Your task to perform on an android device: stop showing notifications on the lock screen Image 0: 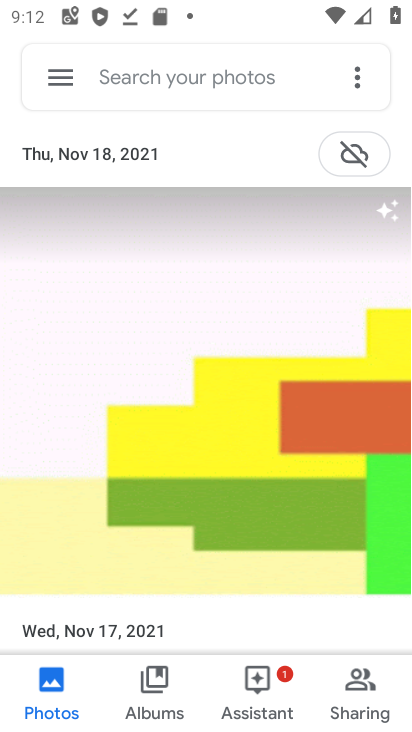
Step 0: press back button
Your task to perform on an android device: stop showing notifications on the lock screen Image 1: 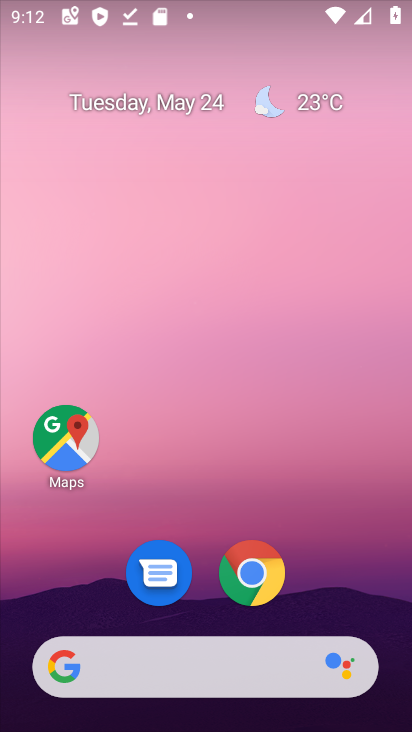
Step 1: drag from (321, 652) to (250, 128)
Your task to perform on an android device: stop showing notifications on the lock screen Image 2: 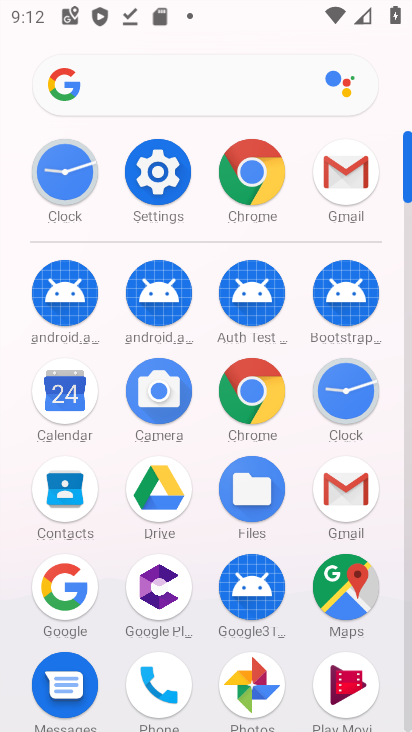
Step 2: click (157, 168)
Your task to perform on an android device: stop showing notifications on the lock screen Image 3: 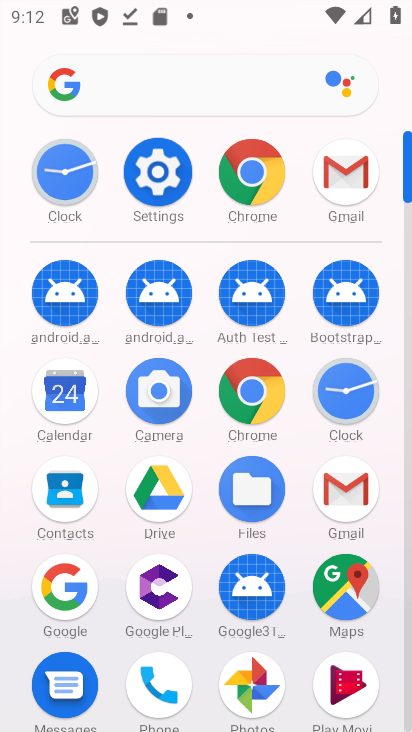
Step 3: click (158, 167)
Your task to perform on an android device: stop showing notifications on the lock screen Image 4: 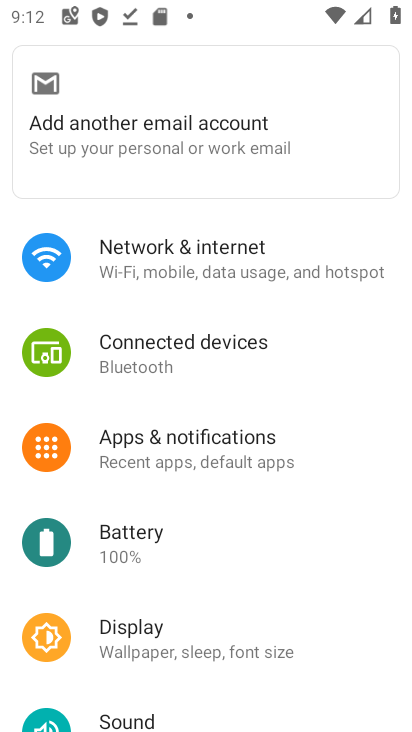
Step 4: click (183, 456)
Your task to perform on an android device: stop showing notifications on the lock screen Image 5: 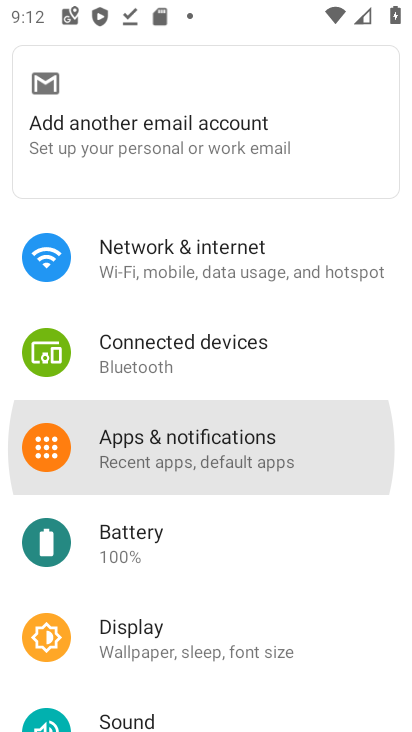
Step 5: click (185, 456)
Your task to perform on an android device: stop showing notifications on the lock screen Image 6: 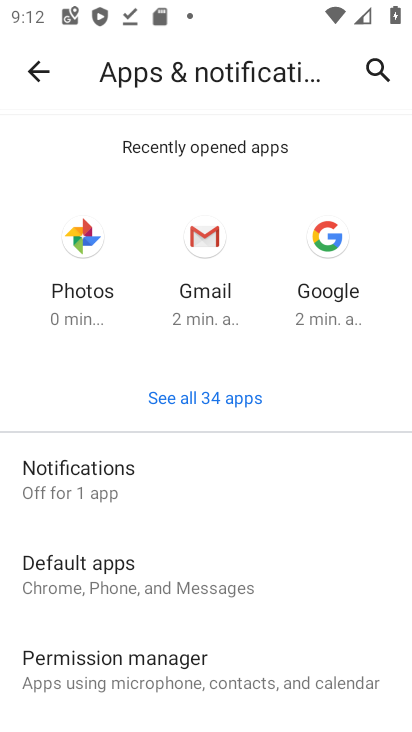
Step 6: click (81, 476)
Your task to perform on an android device: stop showing notifications on the lock screen Image 7: 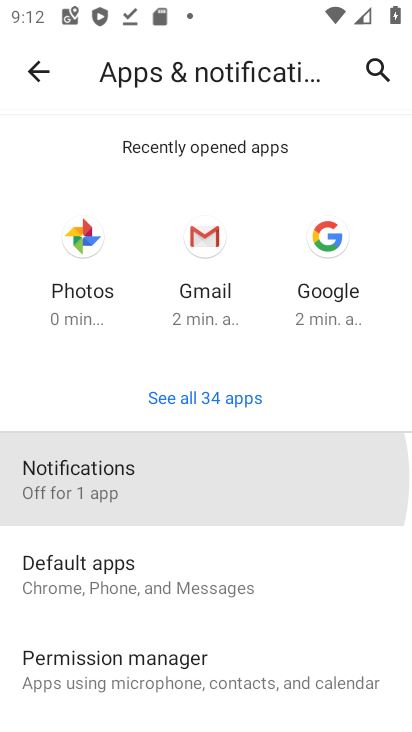
Step 7: click (81, 476)
Your task to perform on an android device: stop showing notifications on the lock screen Image 8: 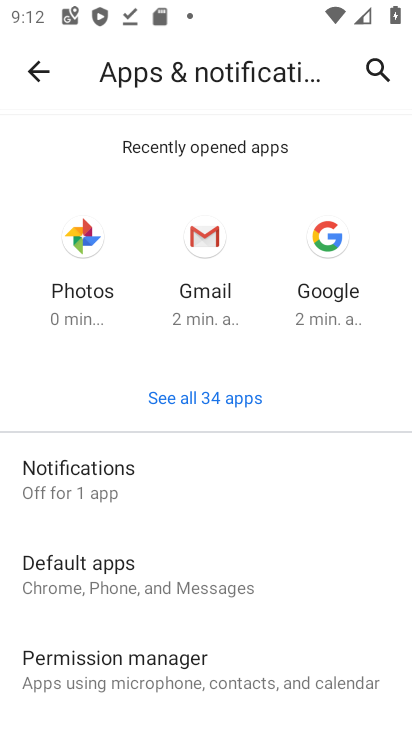
Step 8: click (82, 476)
Your task to perform on an android device: stop showing notifications on the lock screen Image 9: 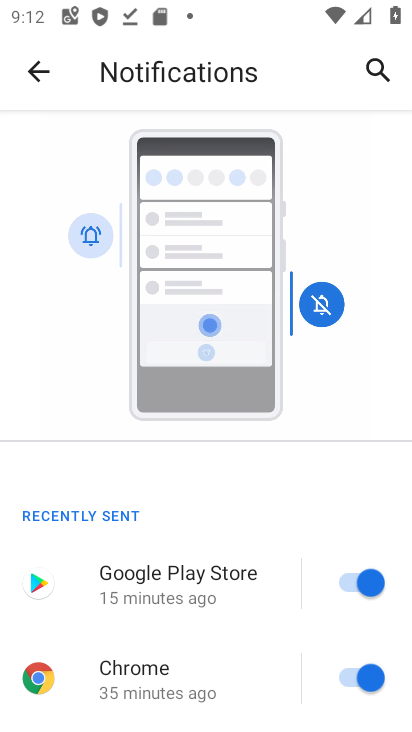
Step 9: drag from (175, 575) to (176, 318)
Your task to perform on an android device: stop showing notifications on the lock screen Image 10: 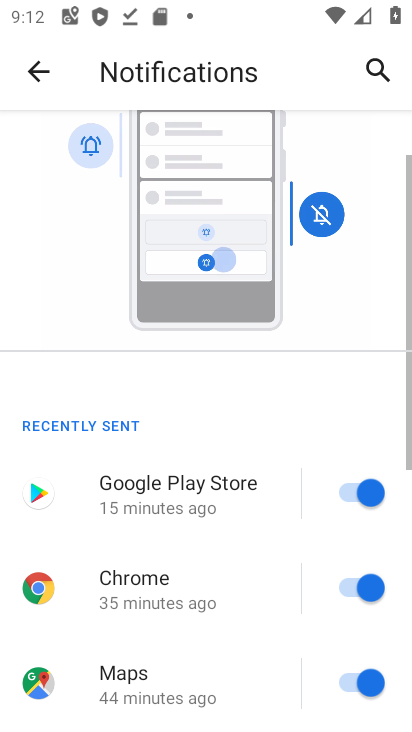
Step 10: drag from (233, 458) to (252, 222)
Your task to perform on an android device: stop showing notifications on the lock screen Image 11: 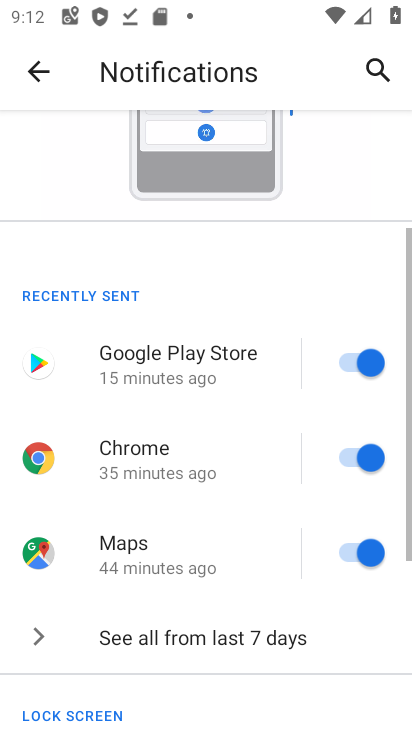
Step 11: drag from (228, 517) to (228, 172)
Your task to perform on an android device: stop showing notifications on the lock screen Image 12: 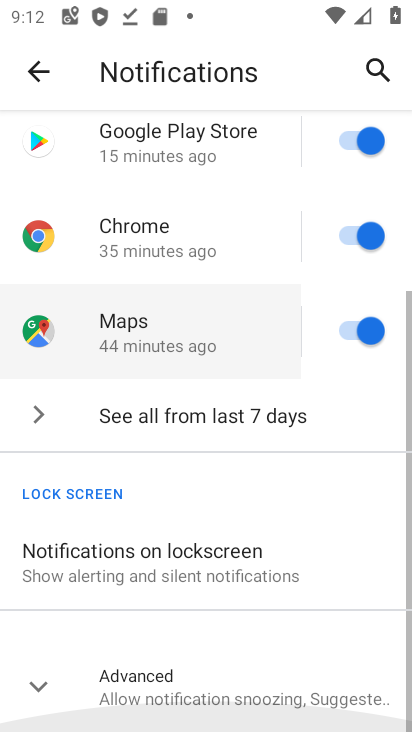
Step 12: drag from (233, 731) to (196, 371)
Your task to perform on an android device: stop showing notifications on the lock screen Image 13: 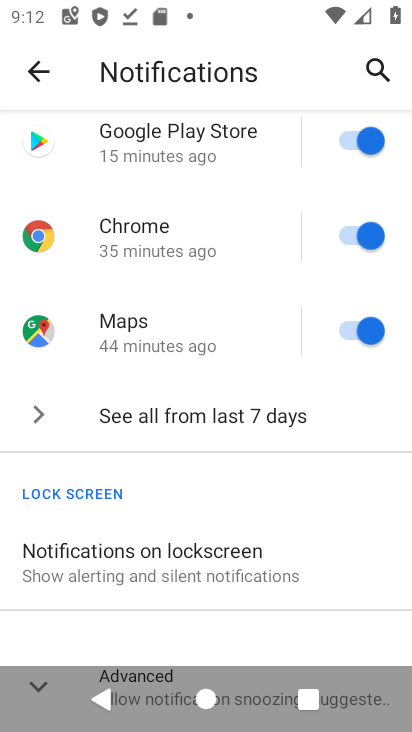
Step 13: click (145, 572)
Your task to perform on an android device: stop showing notifications on the lock screen Image 14: 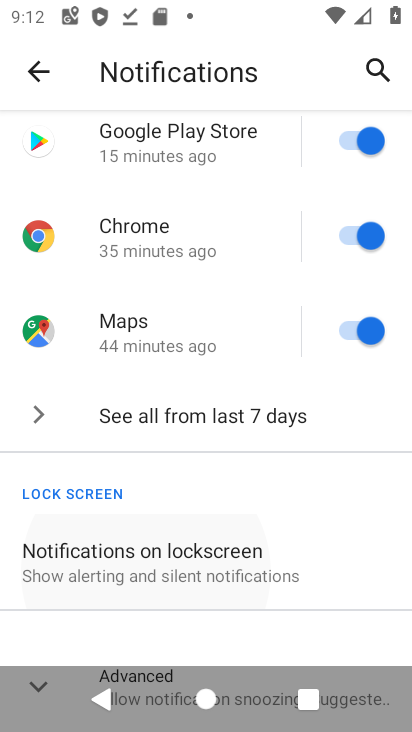
Step 14: click (150, 564)
Your task to perform on an android device: stop showing notifications on the lock screen Image 15: 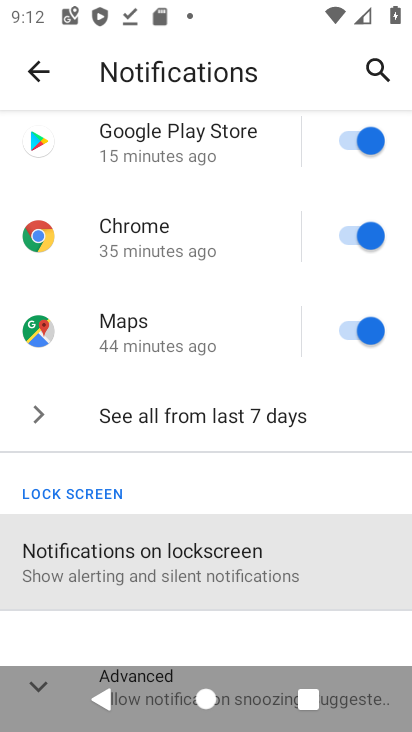
Step 15: click (150, 563)
Your task to perform on an android device: stop showing notifications on the lock screen Image 16: 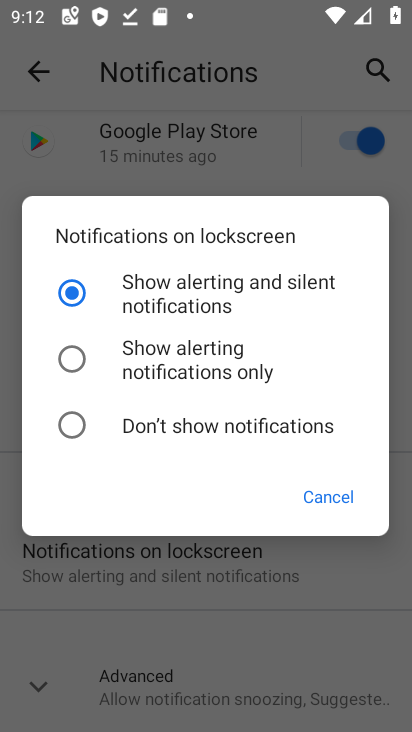
Step 16: click (62, 424)
Your task to perform on an android device: stop showing notifications on the lock screen Image 17: 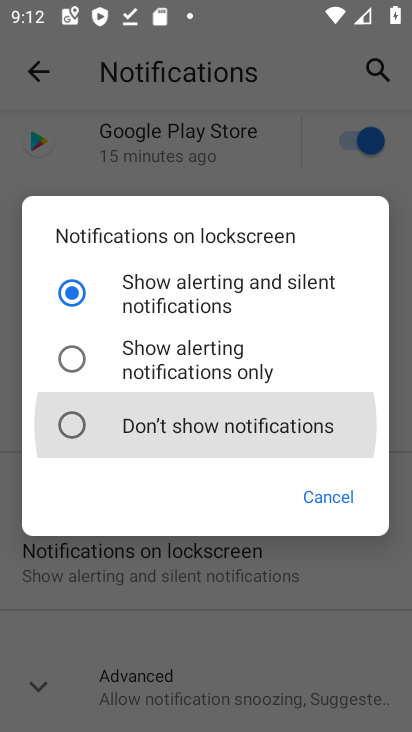
Step 17: click (69, 425)
Your task to perform on an android device: stop showing notifications on the lock screen Image 18: 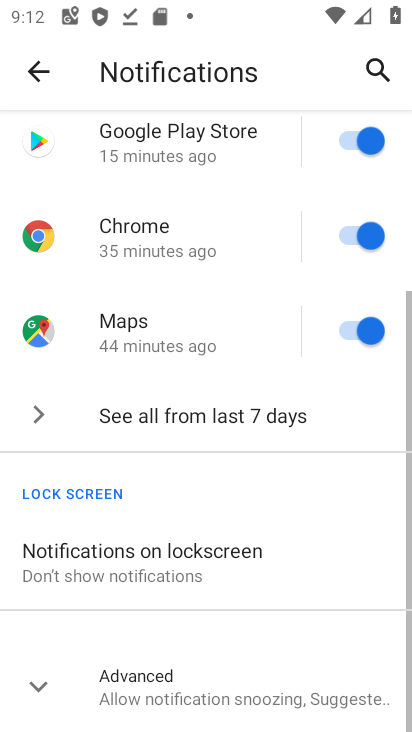
Step 18: click (69, 425)
Your task to perform on an android device: stop showing notifications on the lock screen Image 19: 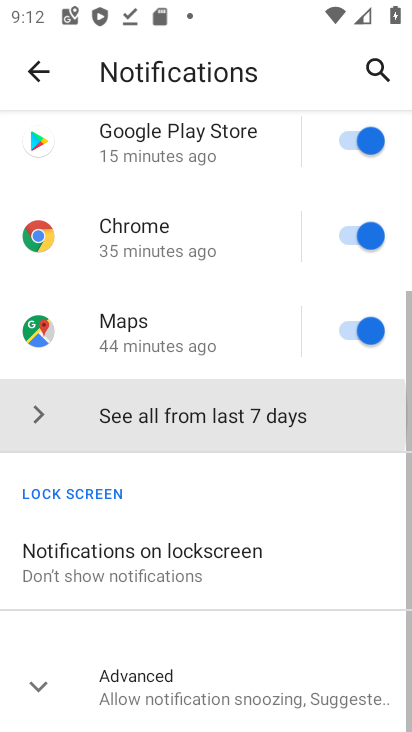
Step 19: click (70, 425)
Your task to perform on an android device: stop showing notifications on the lock screen Image 20: 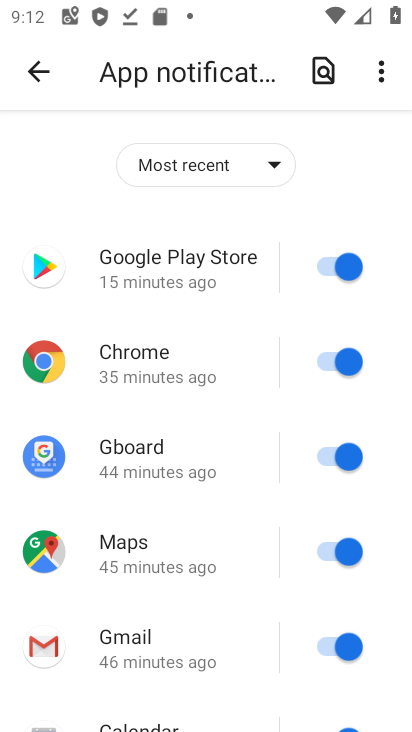
Step 20: task complete